Your task to perform on an android device: View the shopping cart on amazon.com. Add "asus zenbook" to the cart on amazon.com Image 0: 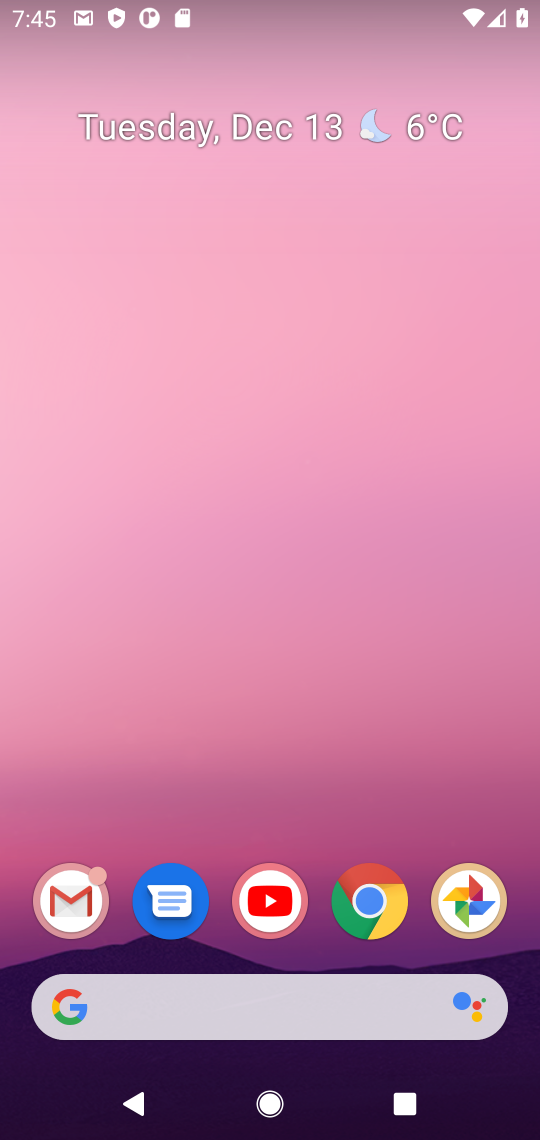
Step 0: click (360, 912)
Your task to perform on an android device: View the shopping cart on amazon.com. Add "asus zenbook" to the cart on amazon.com Image 1: 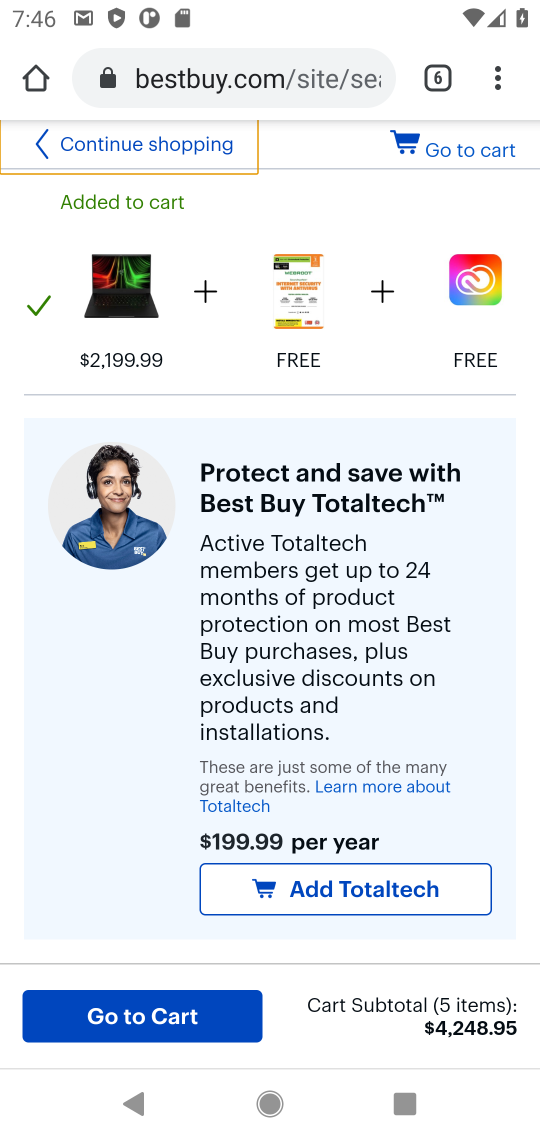
Step 1: click (429, 80)
Your task to perform on an android device: View the shopping cart on amazon.com. Add "asus zenbook" to the cart on amazon.com Image 2: 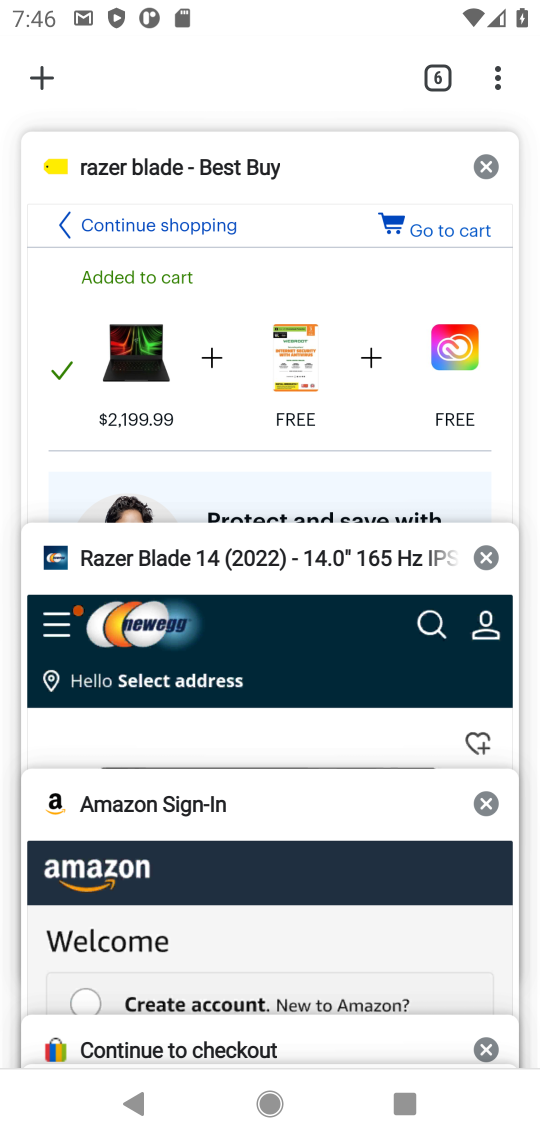
Step 2: click (109, 952)
Your task to perform on an android device: View the shopping cart on amazon.com. Add "asus zenbook" to the cart on amazon.com Image 3: 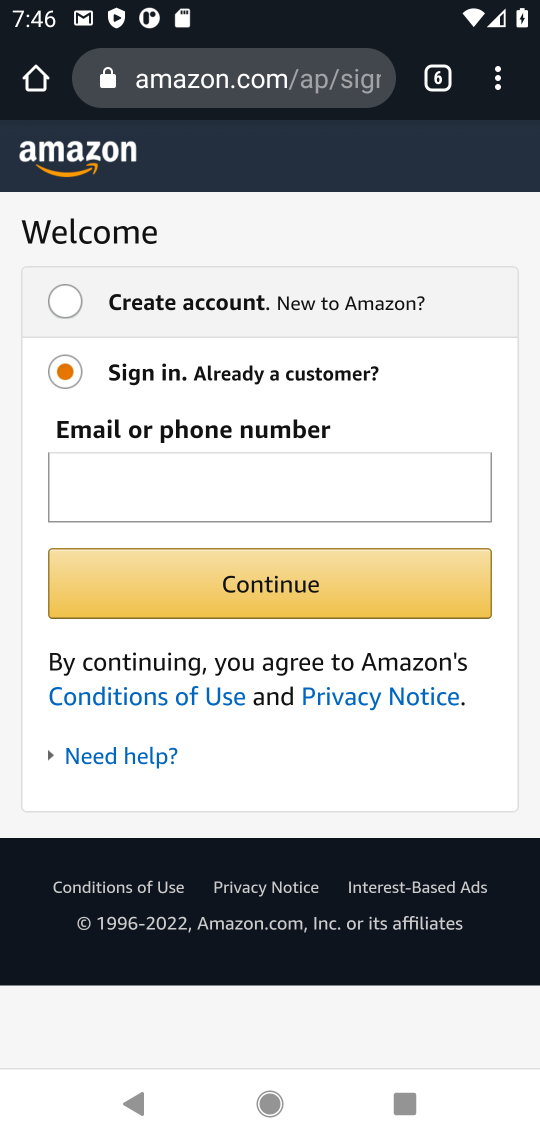
Step 3: press back button
Your task to perform on an android device: View the shopping cart on amazon.com. Add "asus zenbook" to the cart on amazon.com Image 4: 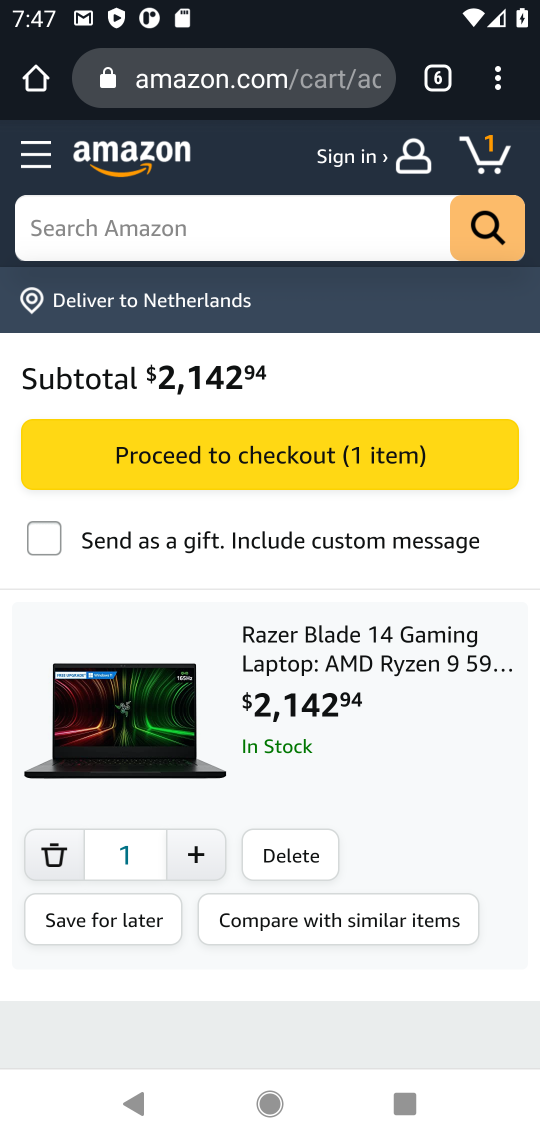
Step 4: click (60, 226)
Your task to perform on an android device: View the shopping cart on amazon.com. Add "asus zenbook" to the cart on amazon.com Image 5: 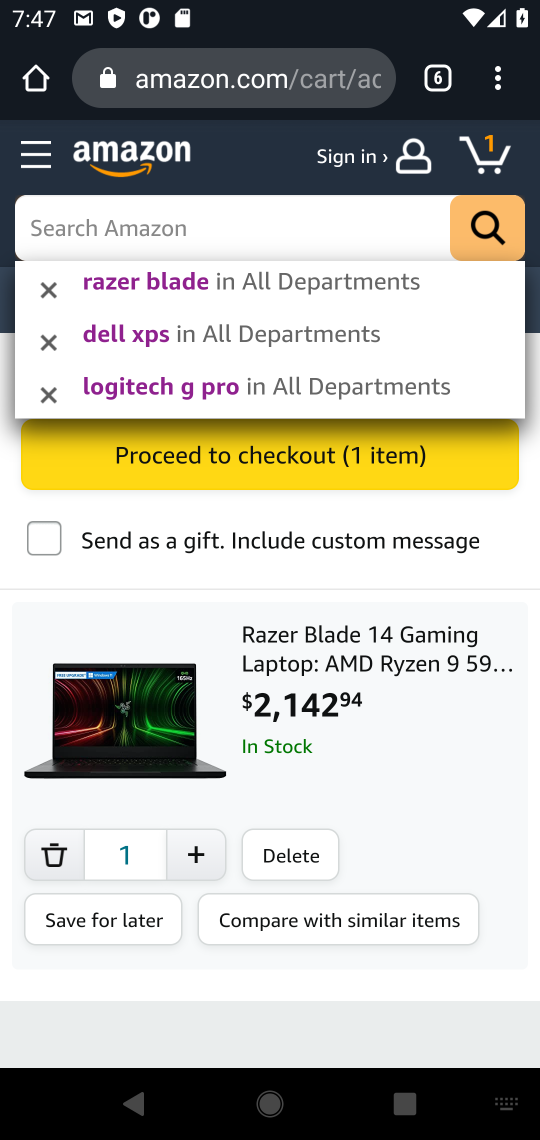
Step 5: type "asus zenbook"
Your task to perform on an android device: View the shopping cart on amazon.com. Add "asus zenbook" to the cart on amazon.com Image 6: 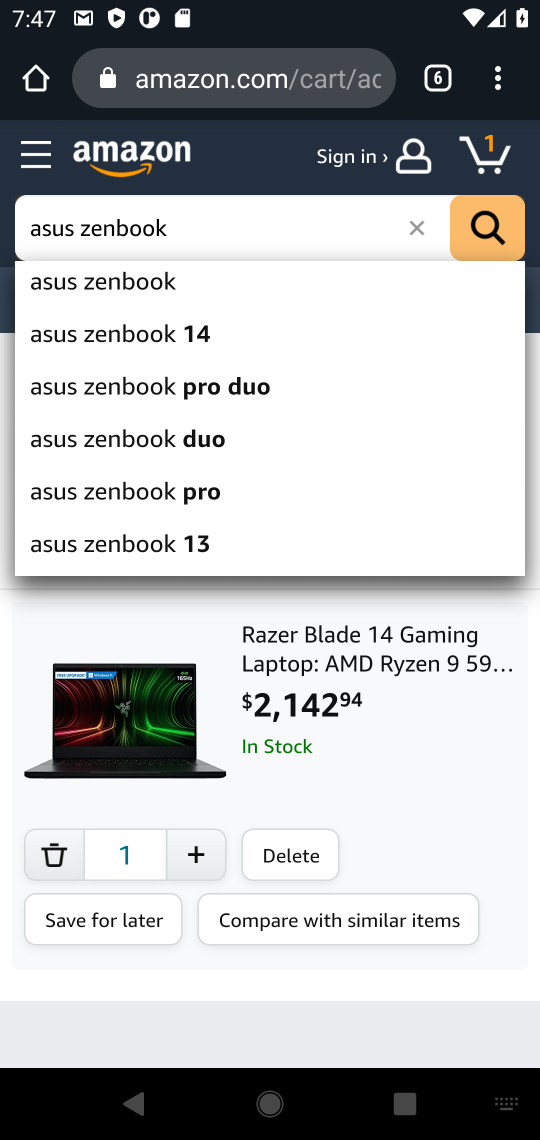
Step 6: click (142, 289)
Your task to perform on an android device: View the shopping cart on amazon.com. Add "asus zenbook" to the cart on amazon.com Image 7: 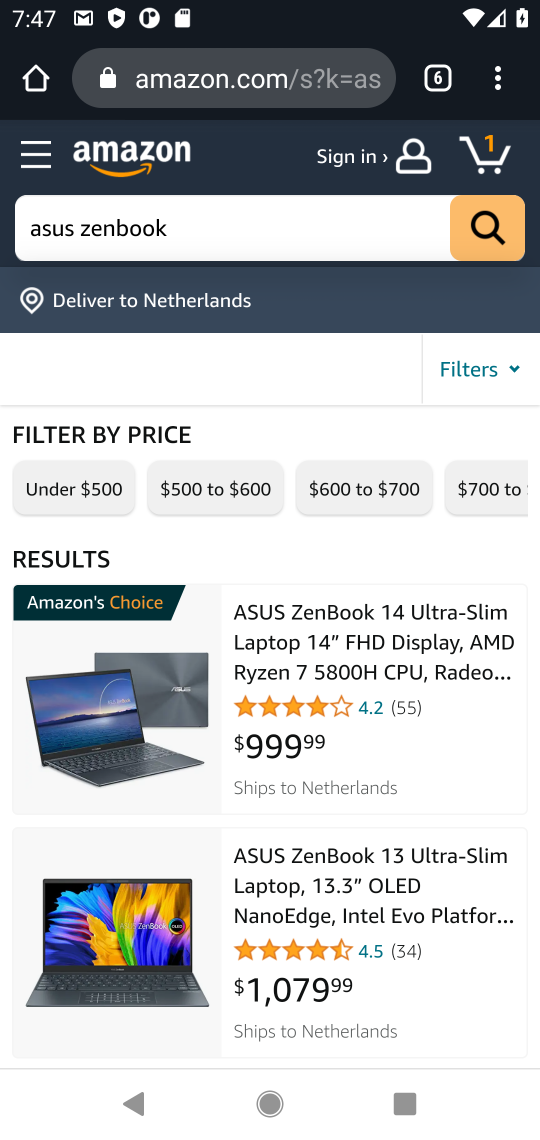
Step 7: click (401, 649)
Your task to perform on an android device: View the shopping cart on amazon.com. Add "asus zenbook" to the cart on amazon.com Image 8: 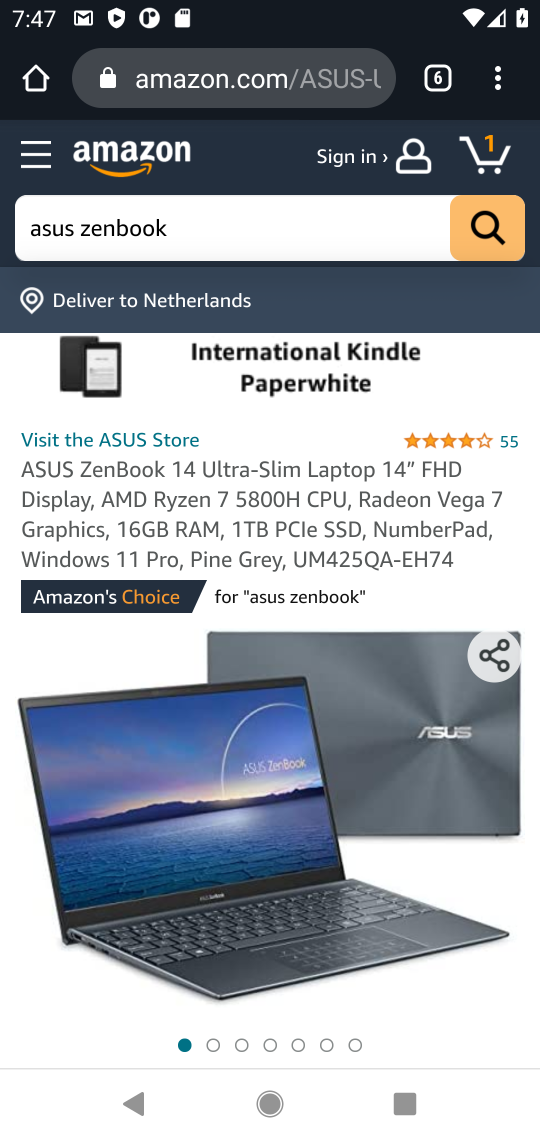
Step 8: drag from (425, 990) to (459, 212)
Your task to perform on an android device: View the shopping cart on amazon.com. Add "asus zenbook" to the cart on amazon.com Image 9: 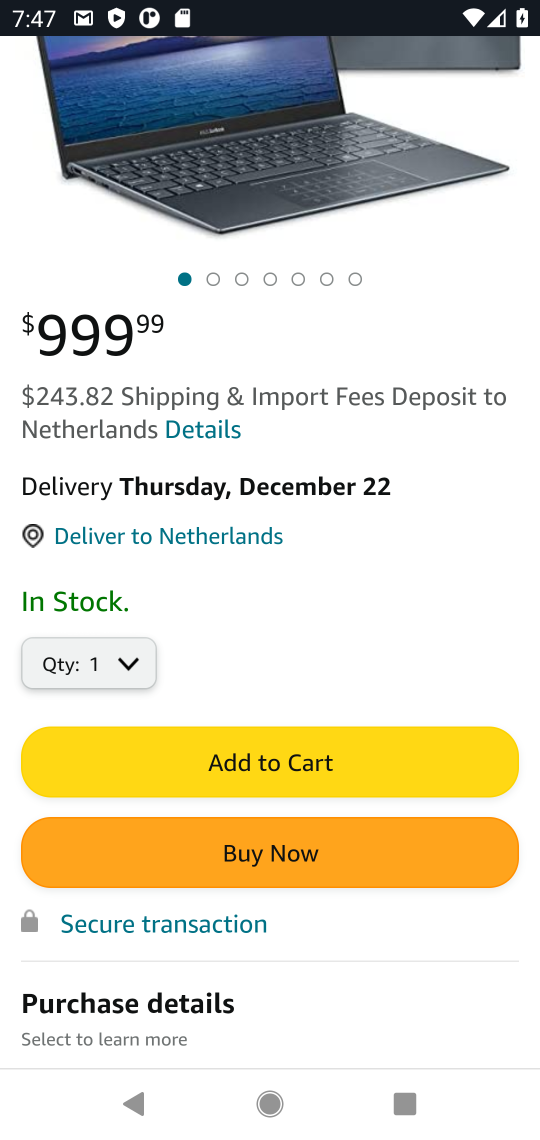
Step 9: click (285, 759)
Your task to perform on an android device: View the shopping cart on amazon.com. Add "asus zenbook" to the cart on amazon.com Image 10: 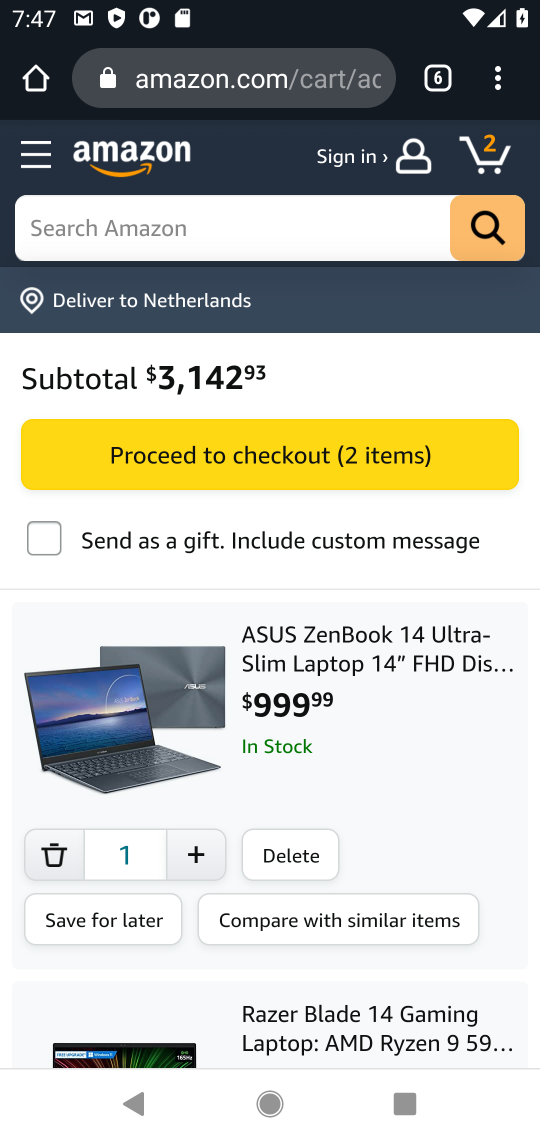
Step 10: task complete